Your task to perform on an android device: turn off improve location accuracy Image 0: 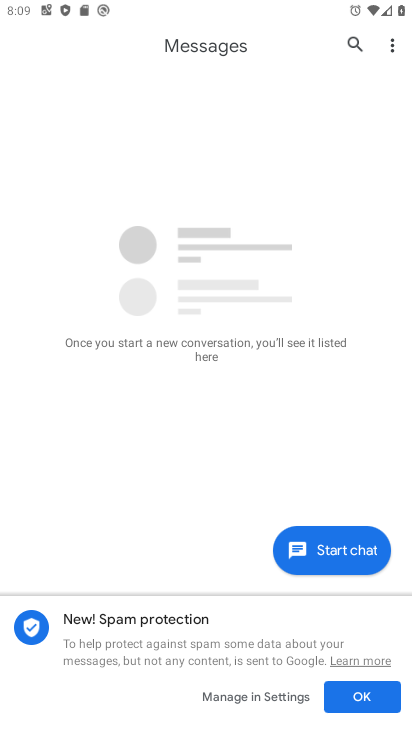
Step 0: press home button
Your task to perform on an android device: turn off improve location accuracy Image 1: 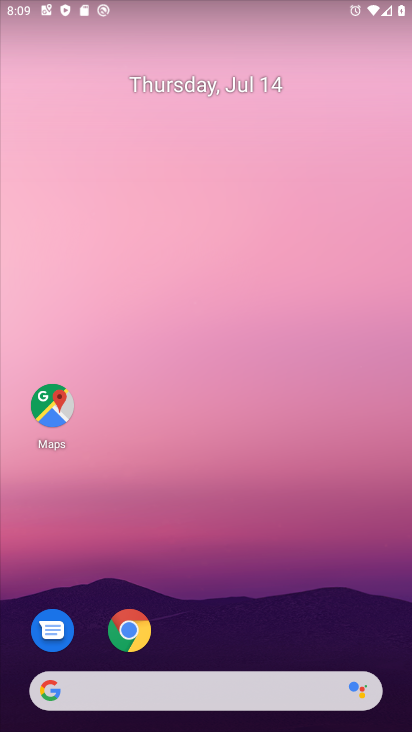
Step 1: drag from (189, 717) to (177, 68)
Your task to perform on an android device: turn off improve location accuracy Image 2: 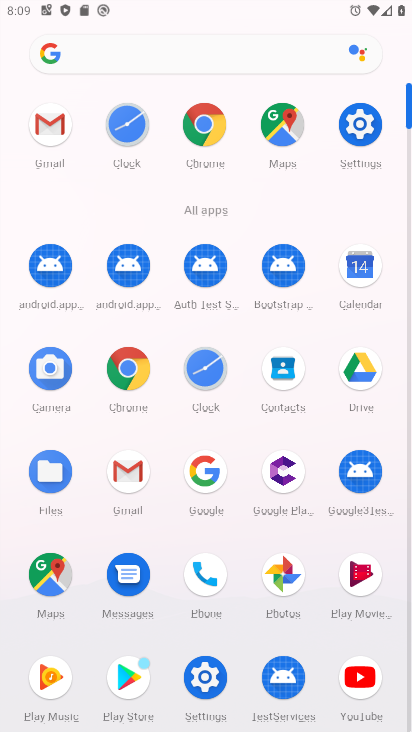
Step 2: click (355, 126)
Your task to perform on an android device: turn off improve location accuracy Image 3: 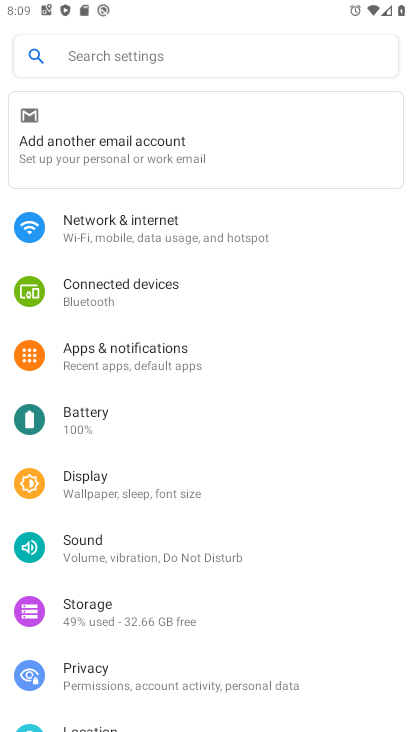
Step 3: click (66, 726)
Your task to perform on an android device: turn off improve location accuracy Image 4: 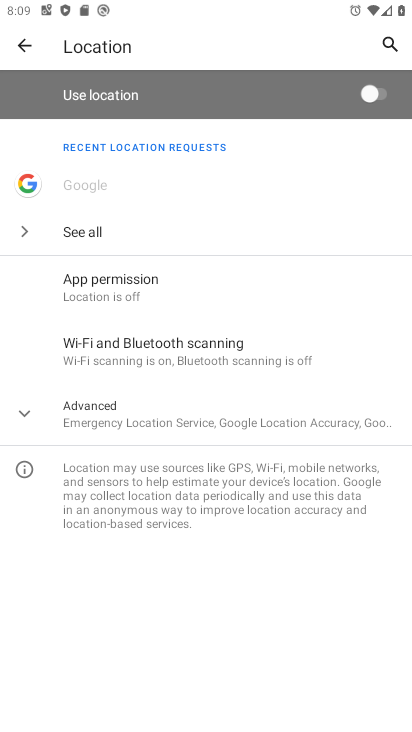
Step 4: click (88, 410)
Your task to perform on an android device: turn off improve location accuracy Image 5: 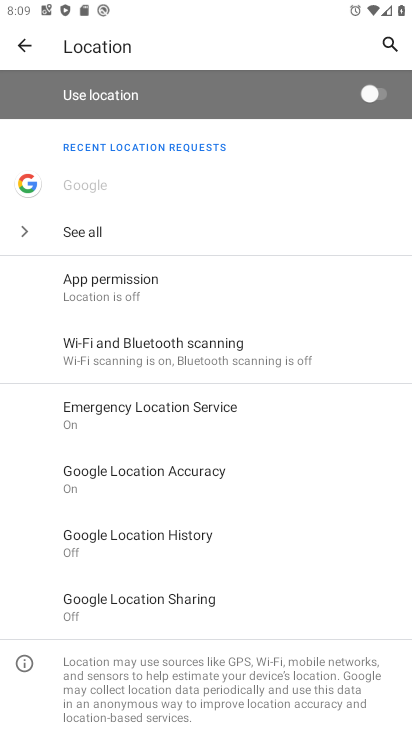
Step 5: click (114, 468)
Your task to perform on an android device: turn off improve location accuracy Image 6: 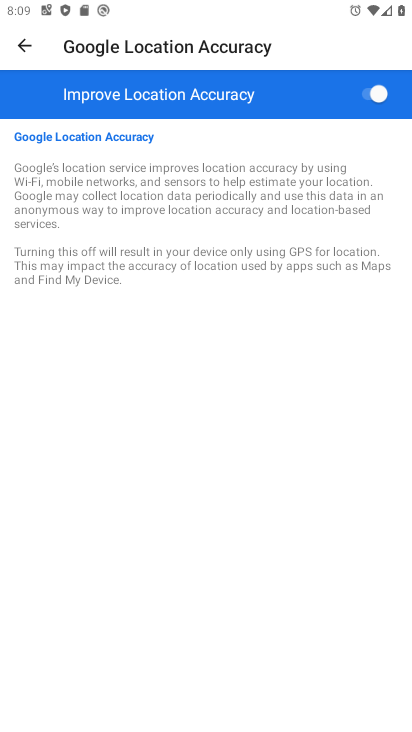
Step 6: click (371, 90)
Your task to perform on an android device: turn off improve location accuracy Image 7: 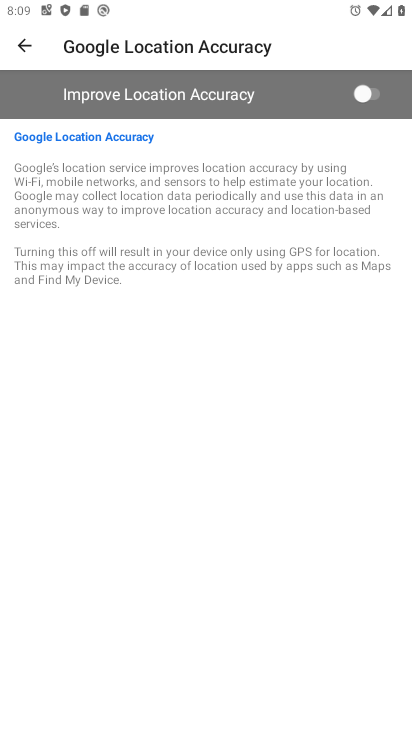
Step 7: task complete